Your task to perform on an android device: toggle data saver in the chrome app Image 0: 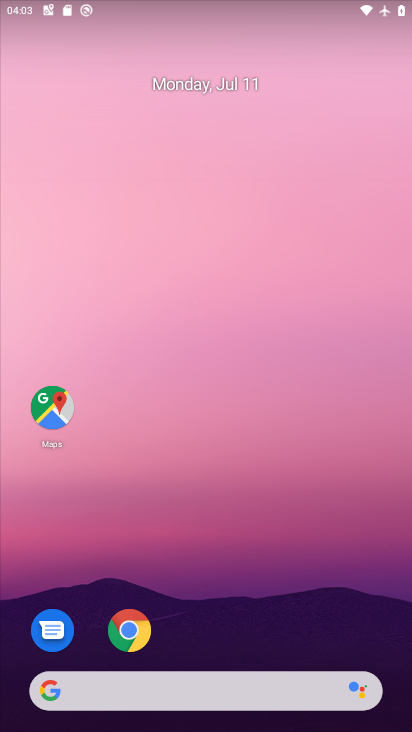
Step 0: drag from (295, 629) to (247, 133)
Your task to perform on an android device: toggle data saver in the chrome app Image 1: 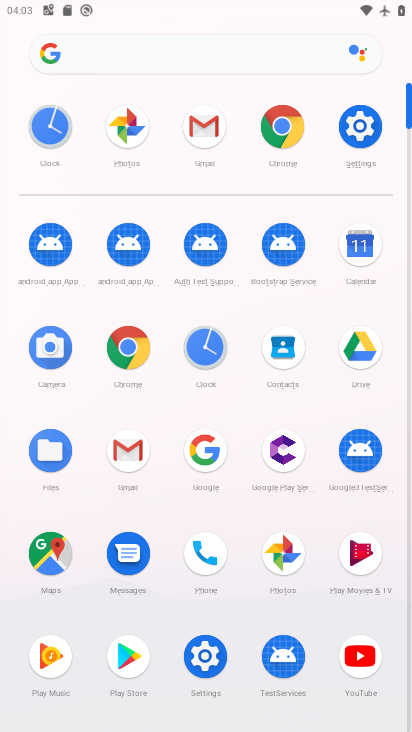
Step 1: click (280, 133)
Your task to perform on an android device: toggle data saver in the chrome app Image 2: 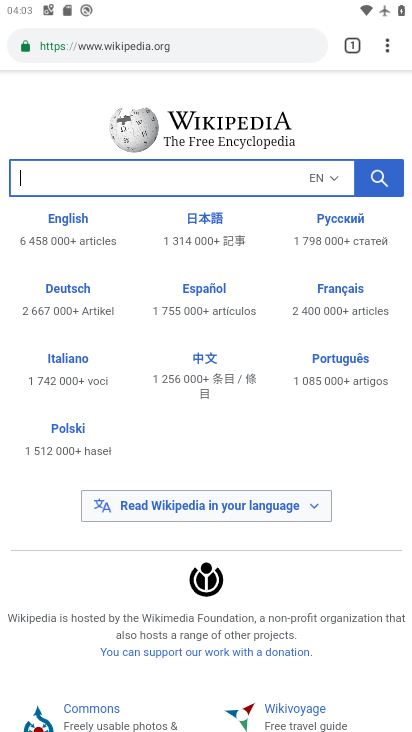
Step 2: click (380, 58)
Your task to perform on an android device: toggle data saver in the chrome app Image 3: 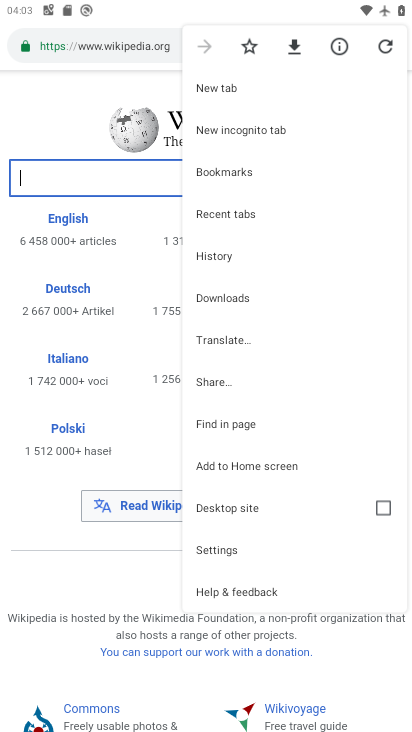
Step 3: click (263, 559)
Your task to perform on an android device: toggle data saver in the chrome app Image 4: 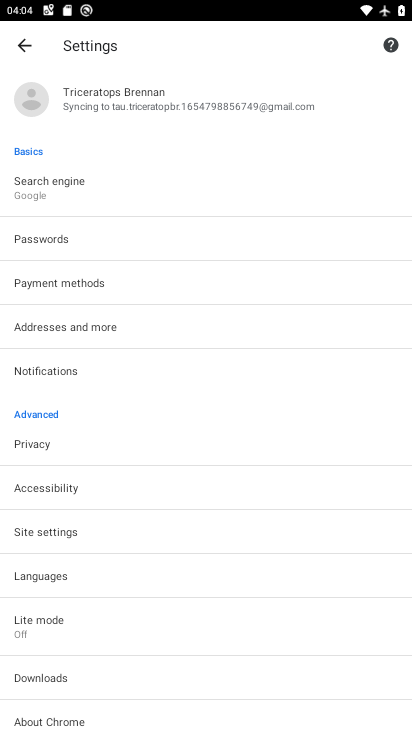
Step 4: drag from (212, 673) to (207, 362)
Your task to perform on an android device: toggle data saver in the chrome app Image 5: 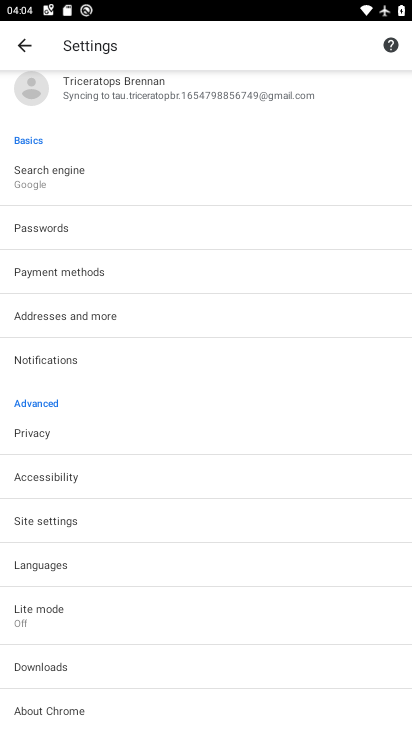
Step 5: click (196, 610)
Your task to perform on an android device: toggle data saver in the chrome app Image 6: 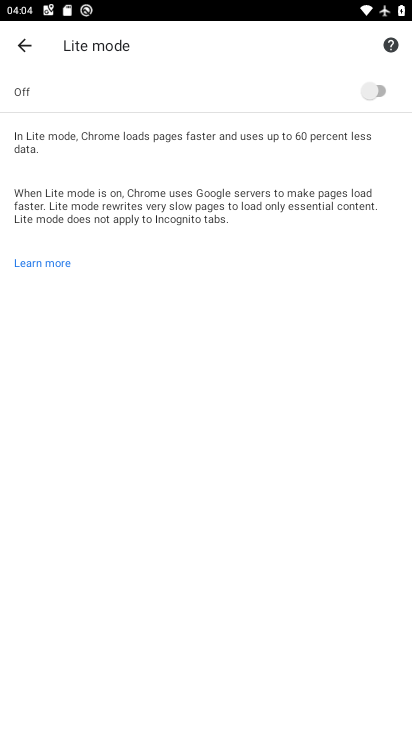
Step 6: click (358, 100)
Your task to perform on an android device: toggle data saver in the chrome app Image 7: 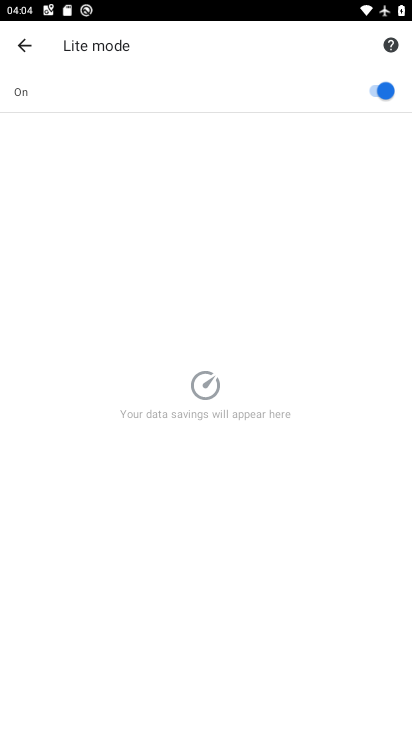
Step 7: task complete